Your task to perform on an android device: change timer sound Image 0: 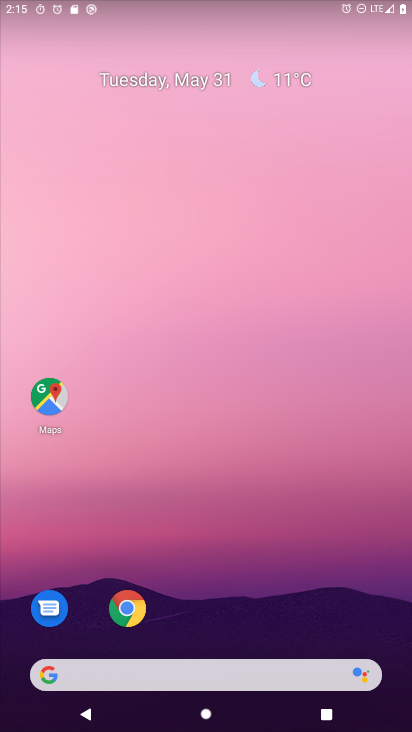
Step 0: drag from (279, 619) to (296, 31)
Your task to perform on an android device: change timer sound Image 1: 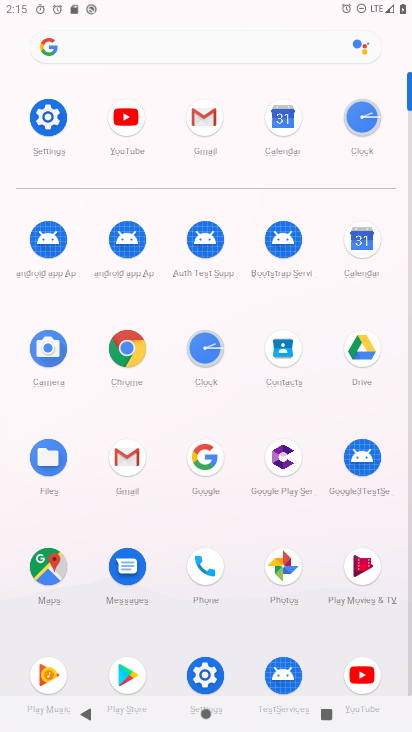
Step 1: click (358, 119)
Your task to perform on an android device: change timer sound Image 2: 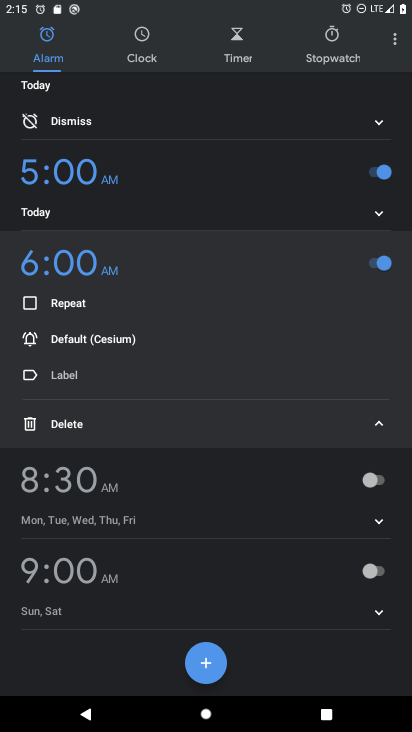
Step 2: click (394, 41)
Your task to perform on an android device: change timer sound Image 3: 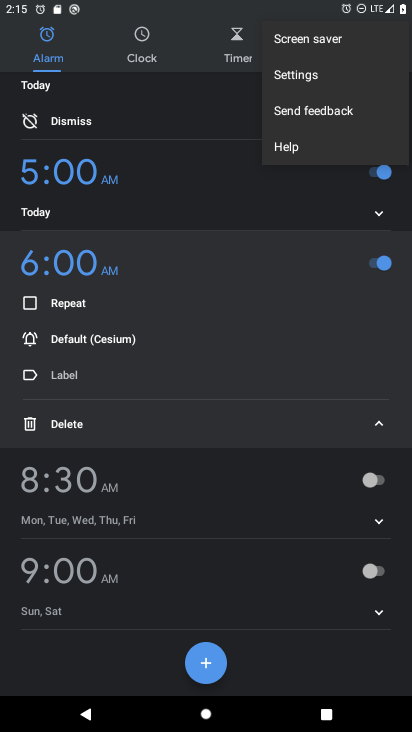
Step 3: click (292, 79)
Your task to perform on an android device: change timer sound Image 4: 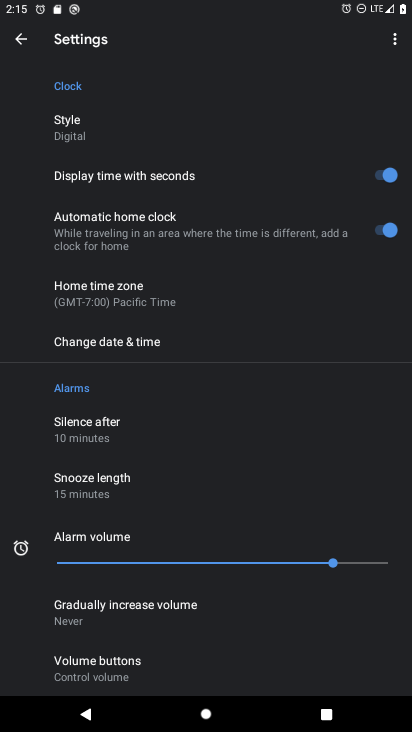
Step 4: drag from (198, 482) to (210, 230)
Your task to perform on an android device: change timer sound Image 5: 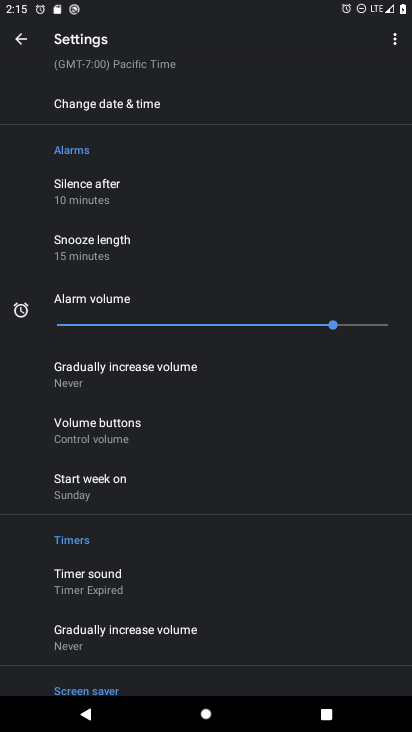
Step 5: click (76, 582)
Your task to perform on an android device: change timer sound Image 6: 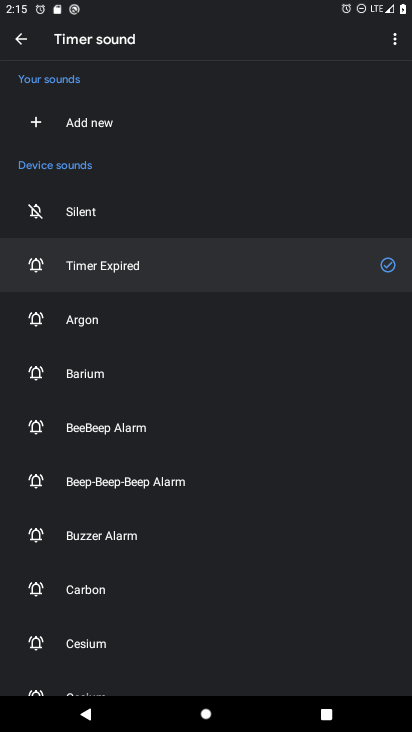
Step 6: click (83, 327)
Your task to perform on an android device: change timer sound Image 7: 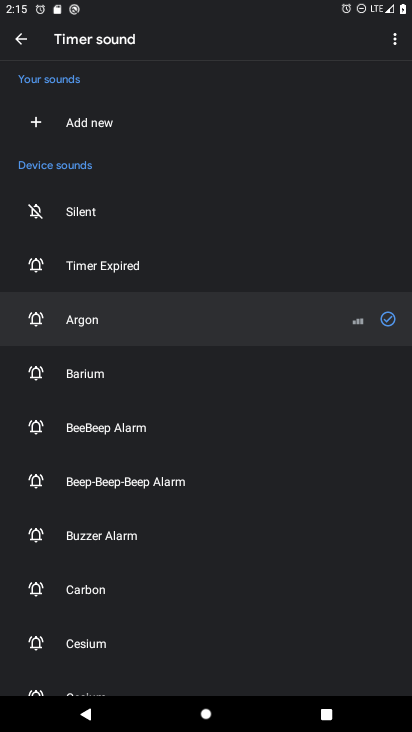
Step 7: task complete